Your task to perform on an android device: turn vacation reply on in the gmail app Image 0: 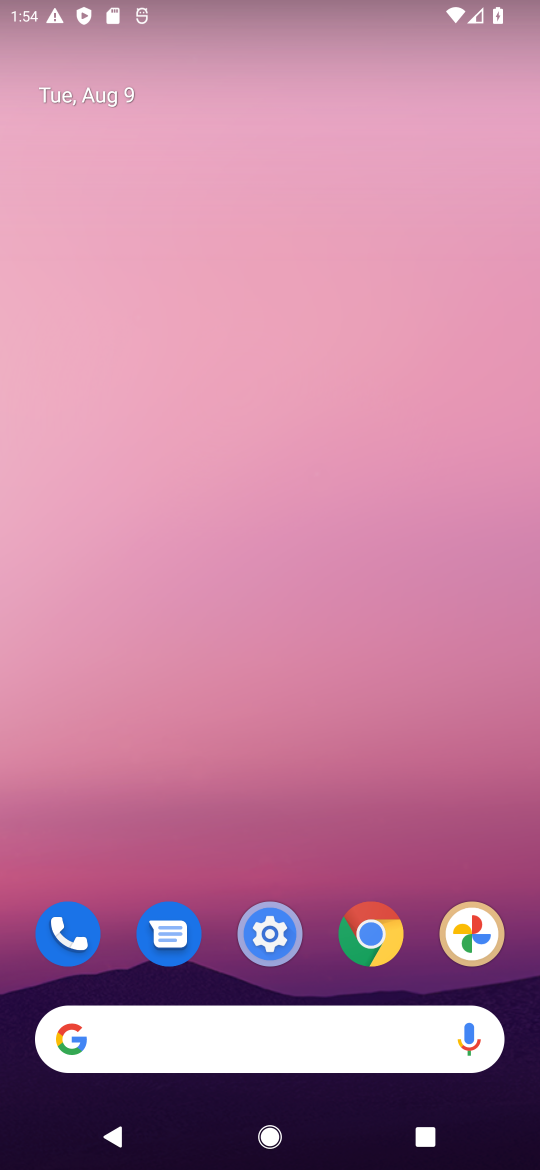
Step 0: drag from (426, 991) to (424, 348)
Your task to perform on an android device: turn vacation reply on in the gmail app Image 1: 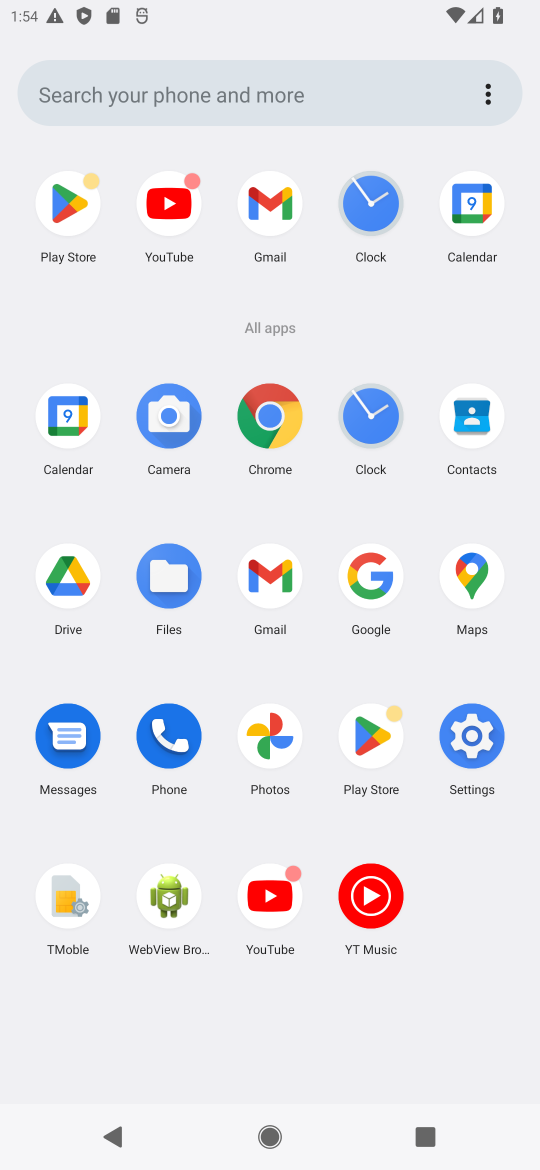
Step 1: click (472, 717)
Your task to perform on an android device: turn vacation reply on in the gmail app Image 2: 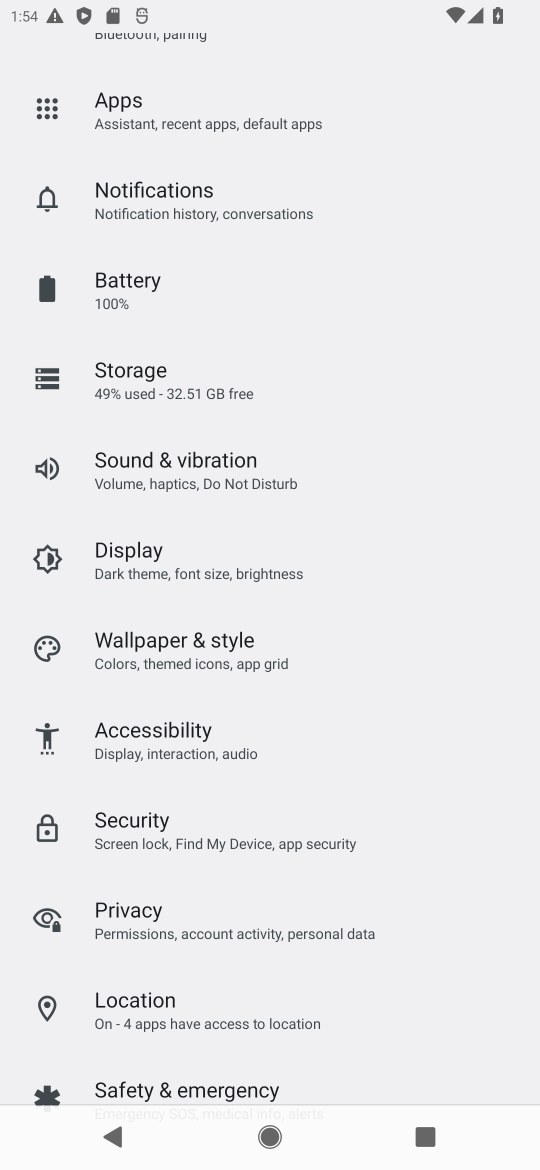
Step 2: task complete